Your task to perform on an android device: change text size in settings app Image 0: 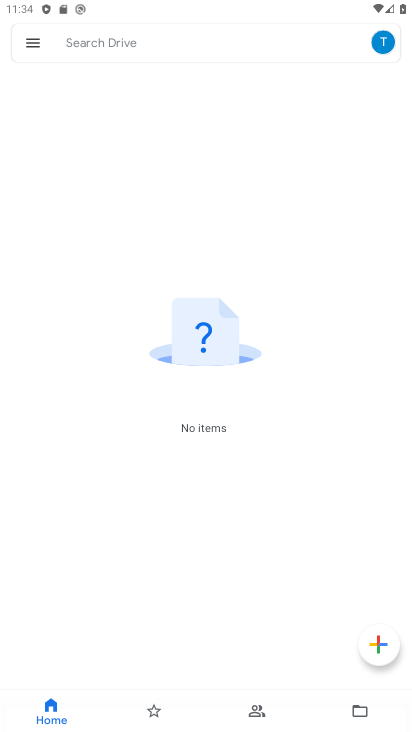
Step 0: press home button
Your task to perform on an android device: change text size in settings app Image 1: 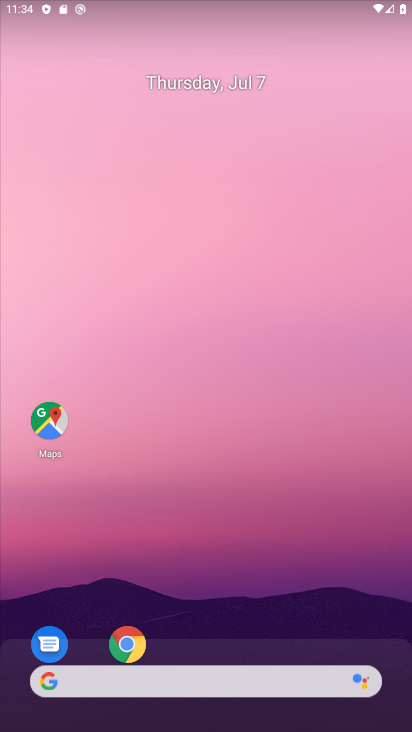
Step 1: drag from (229, 671) to (222, 21)
Your task to perform on an android device: change text size in settings app Image 2: 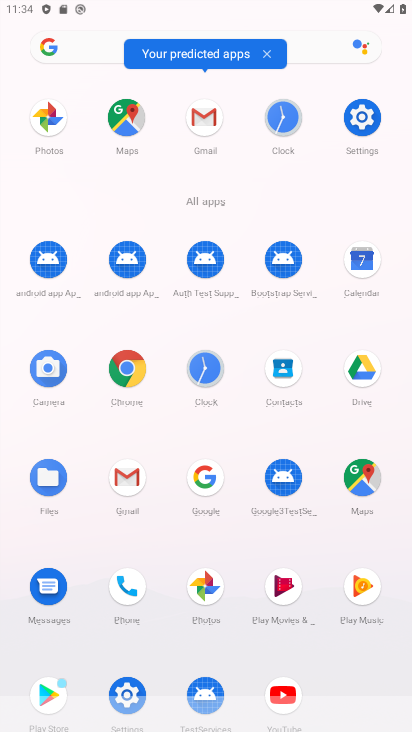
Step 2: click (354, 114)
Your task to perform on an android device: change text size in settings app Image 3: 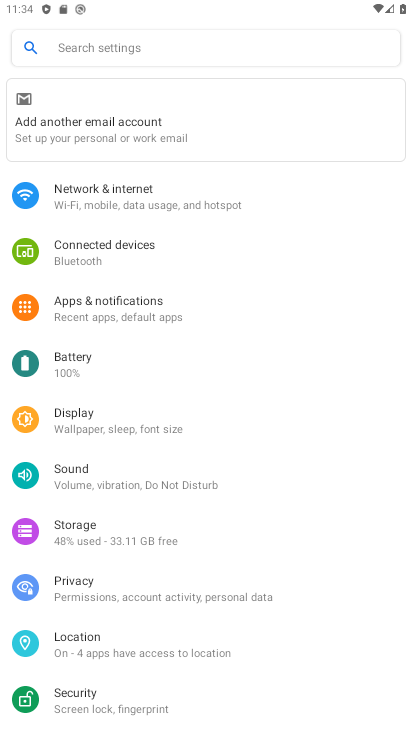
Step 3: click (55, 398)
Your task to perform on an android device: change text size in settings app Image 4: 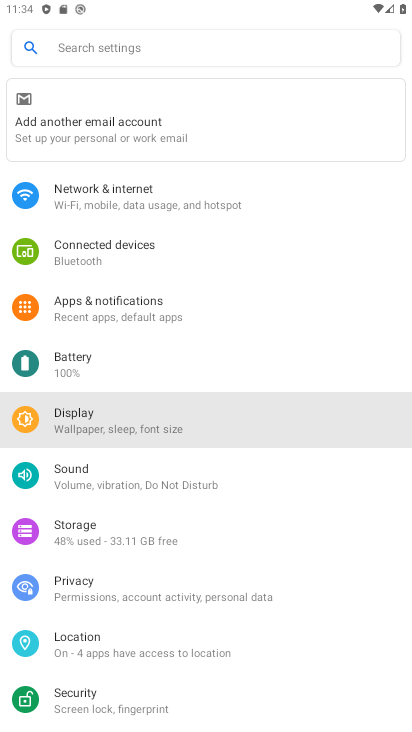
Step 4: click (80, 428)
Your task to perform on an android device: change text size in settings app Image 5: 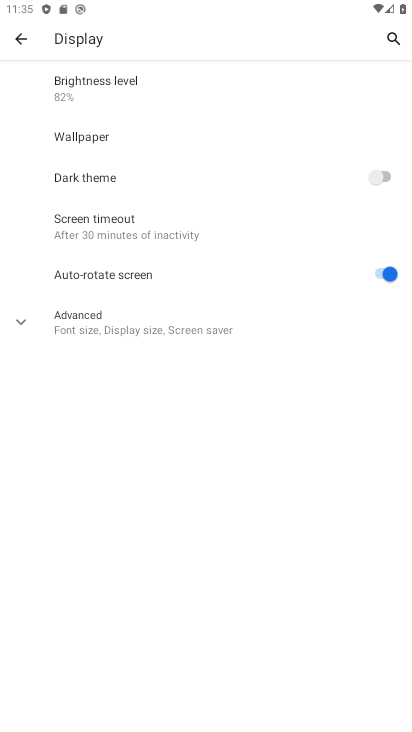
Step 5: click (55, 325)
Your task to perform on an android device: change text size in settings app Image 6: 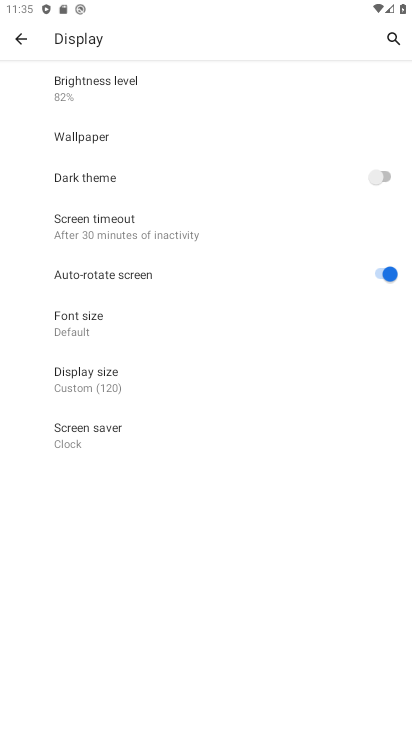
Step 6: click (72, 324)
Your task to perform on an android device: change text size in settings app Image 7: 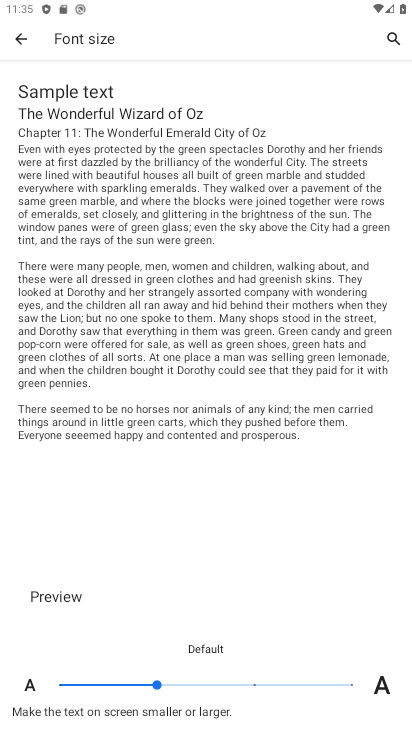
Step 7: click (249, 681)
Your task to perform on an android device: change text size in settings app Image 8: 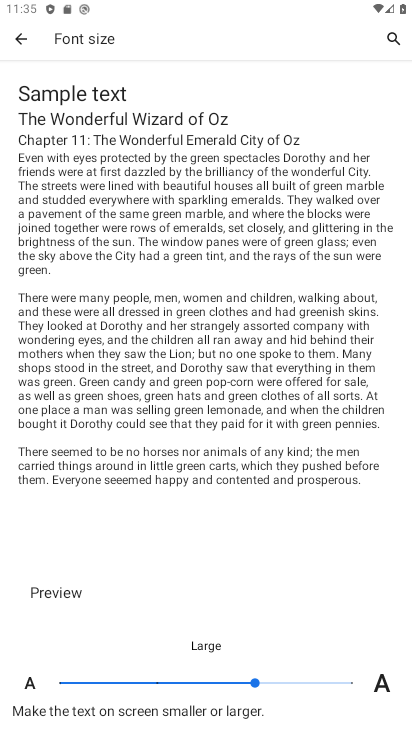
Step 8: task complete